Your task to perform on an android device: Open network settings Image 0: 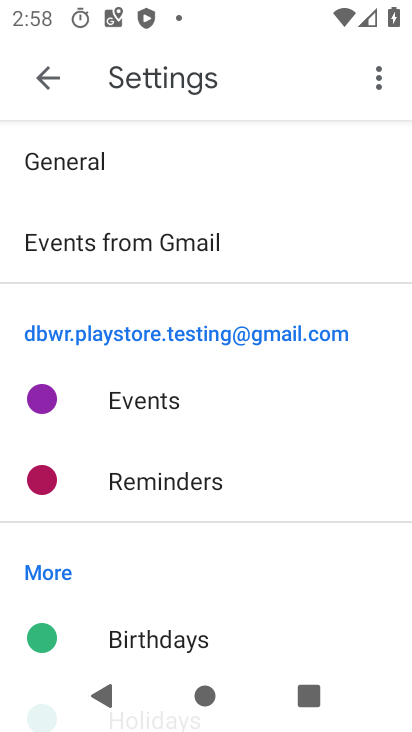
Step 0: press home button
Your task to perform on an android device: Open network settings Image 1: 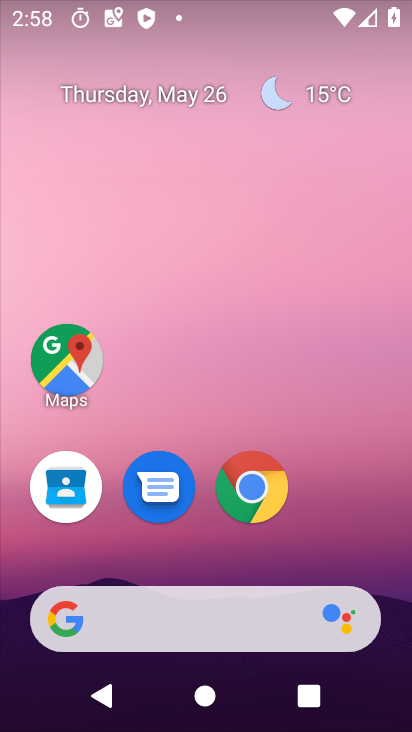
Step 1: drag from (225, 559) to (225, 221)
Your task to perform on an android device: Open network settings Image 2: 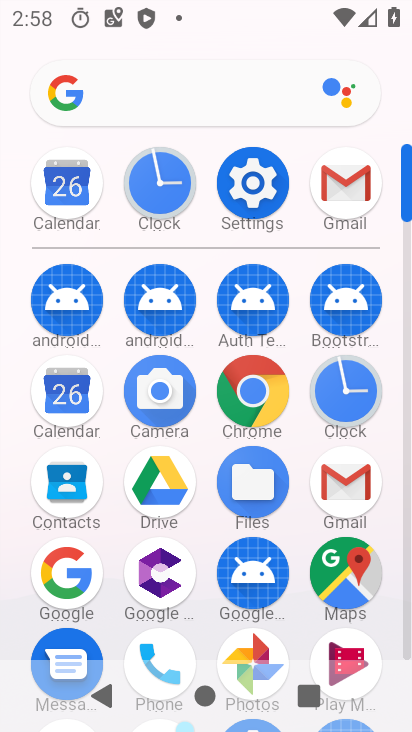
Step 2: click (254, 166)
Your task to perform on an android device: Open network settings Image 3: 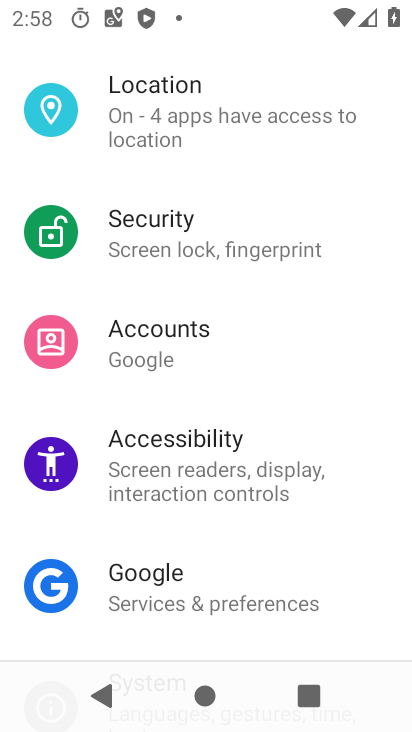
Step 3: drag from (254, 166) to (269, 531)
Your task to perform on an android device: Open network settings Image 4: 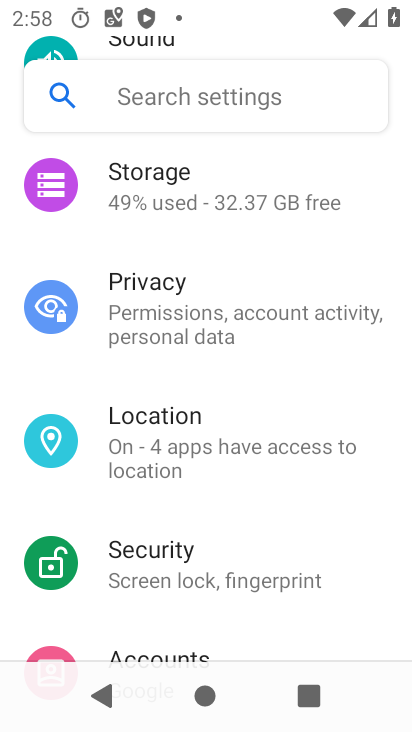
Step 4: drag from (246, 217) to (259, 514)
Your task to perform on an android device: Open network settings Image 5: 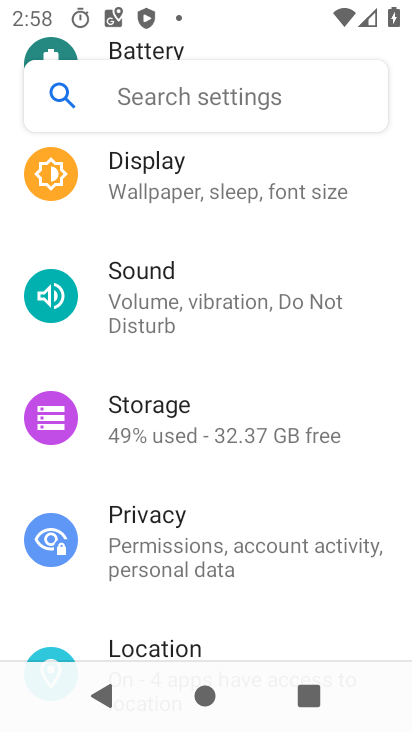
Step 5: drag from (218, 232) to (222, 514)
Your task to perform on an android device: Open network settings Image 6: 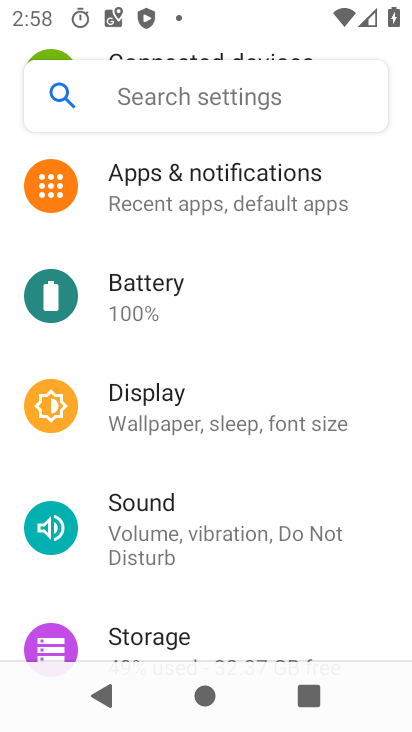
Step 6: drag from (205, 220) to (231, 497)
Your task to perform on an android device: Open network settings Image 7: 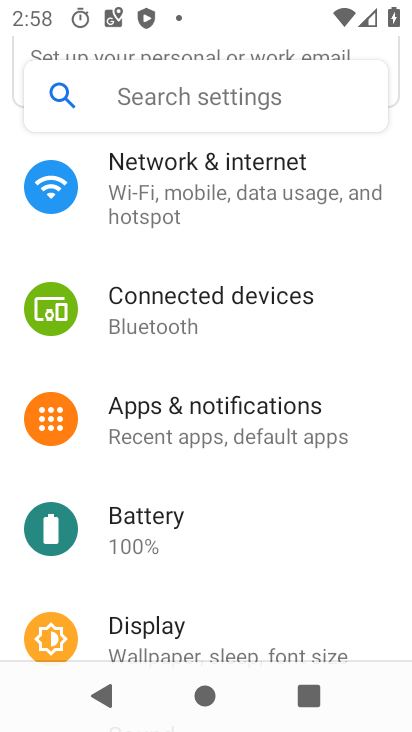
Step 7: click (215, 212)
Your task to perform on an android device: Open network settings Image 8: 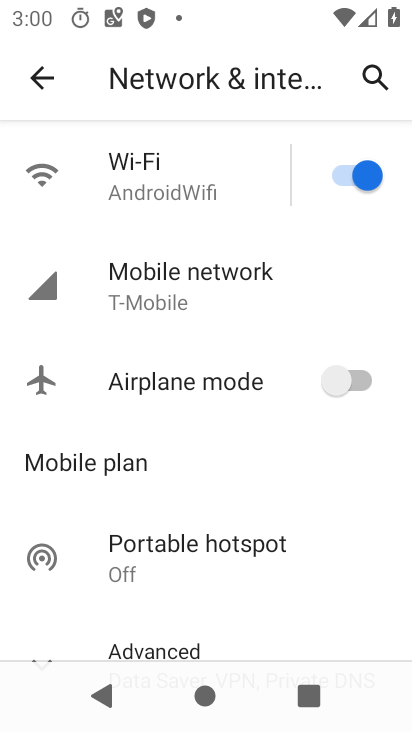
Step 8: click (187, 268)
Your task to perform on an android device: Open network settings Image 9: 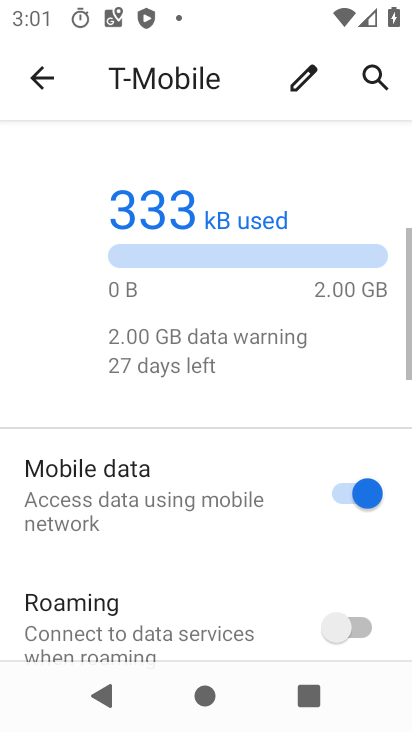
Step 9: task complete